Your task to perform on an android device: turn on the 12-hour format for clock Image 0: 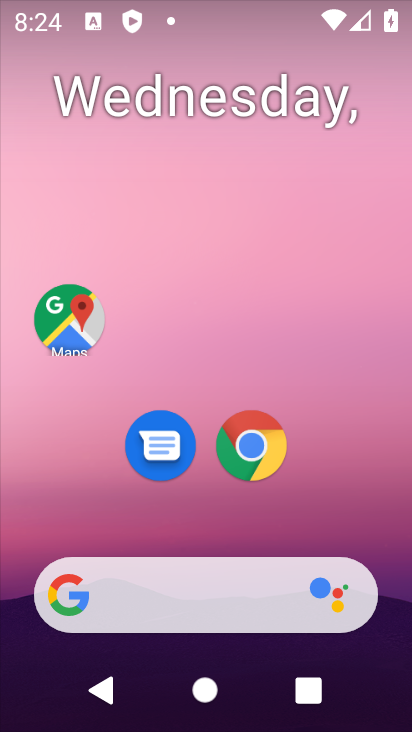
Step 0: drag from (320, 433) to (224, 2)
Your task to perform on an android device: turn on the 12-hour format for clock Image 1: 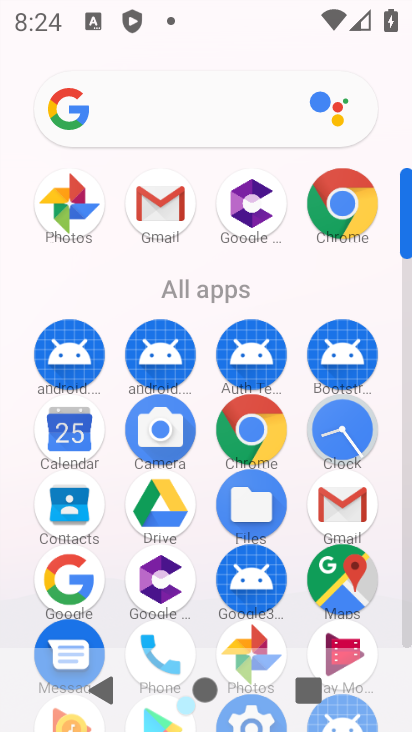
Step 1: click (335, 425)
Your task to perform on an android device: turn on the 12-hour format for clock Image 2: 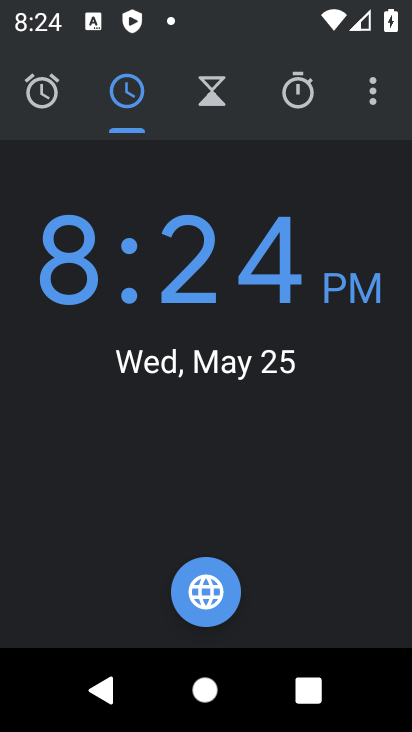
Step 2: click (383, 92)
Your task to perform on an android device: turn on the 12-hour format for clock Image 3: 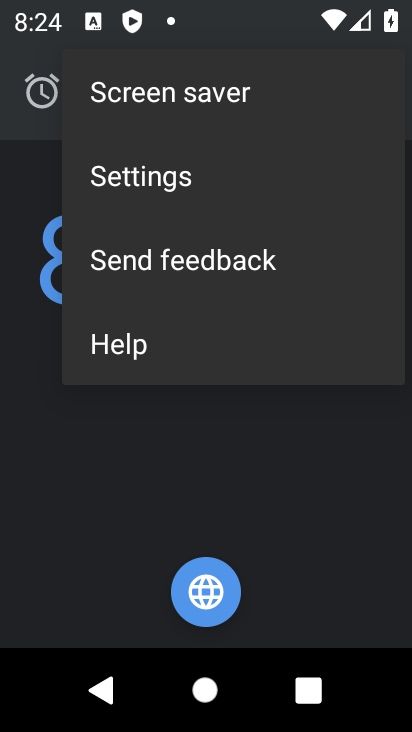
Step 3: click (190, 186)
Your task to perform on an android device: turn on the 12-hour format for clock Image 4: 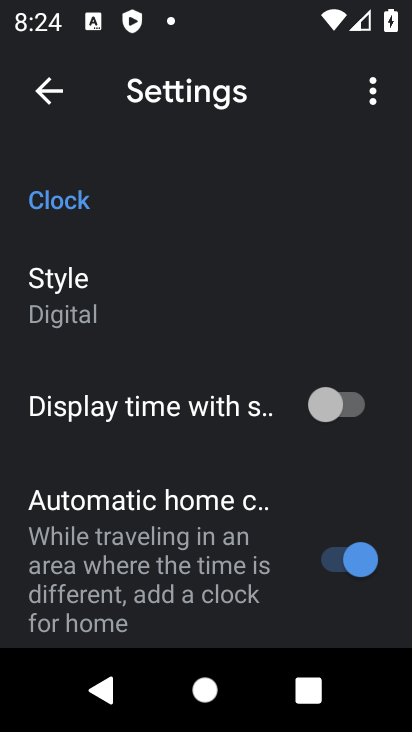
Step 4: drag from (220, 579) to (277, 177)
Your task to perform on an android device: turn on the 12-hour format for clock Image 5: 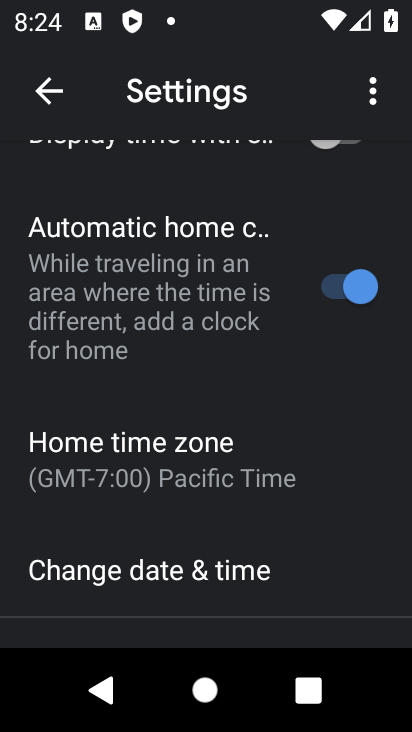
Step 5: drag from (245, 529) to (284, 241)
Your task to perform on an android device: turn on the 12-hour format for clock Image 6: 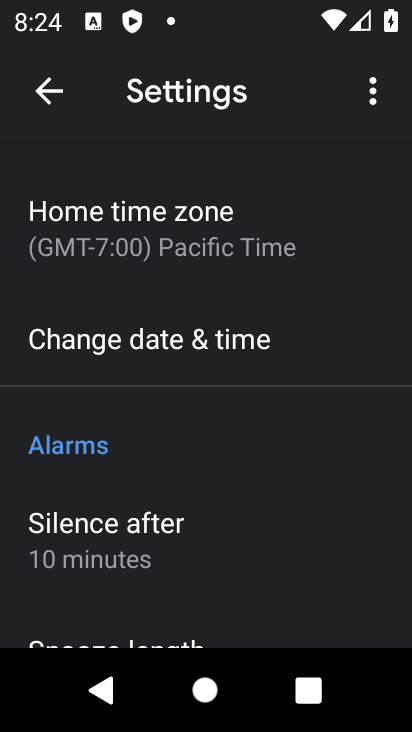
Step 6: click (196, 337)
Your task to perform on an android device: turn on the 12-hour format for clock Image 7: 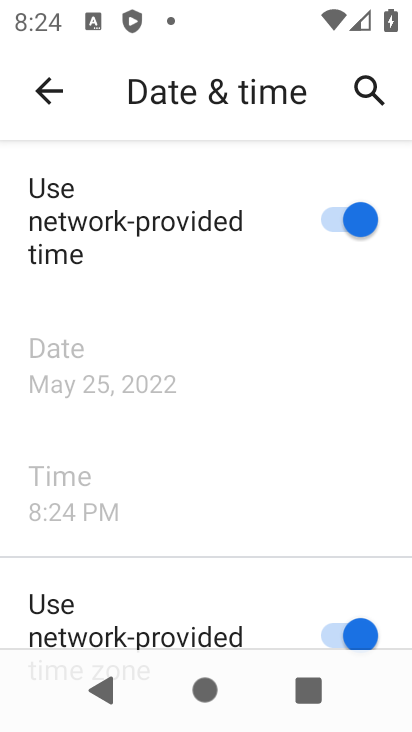
Step 7: task complete